Your task to perform on an android device: open a new tab in the chrome app Image 0: 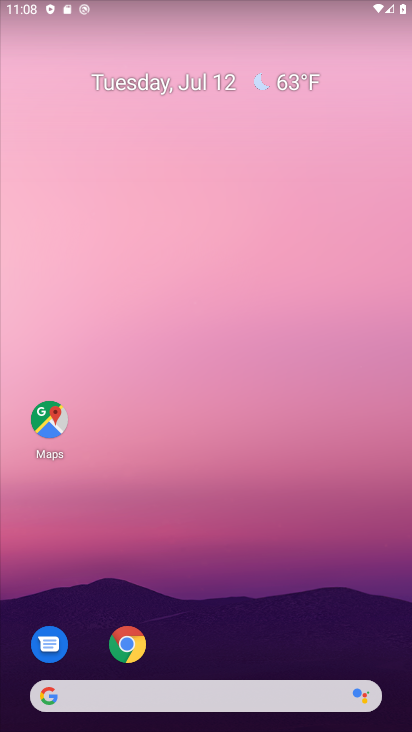
Step 0: click (125, 644)
Your task to perform on an android device: open a new tab in the chrome app Image 1: 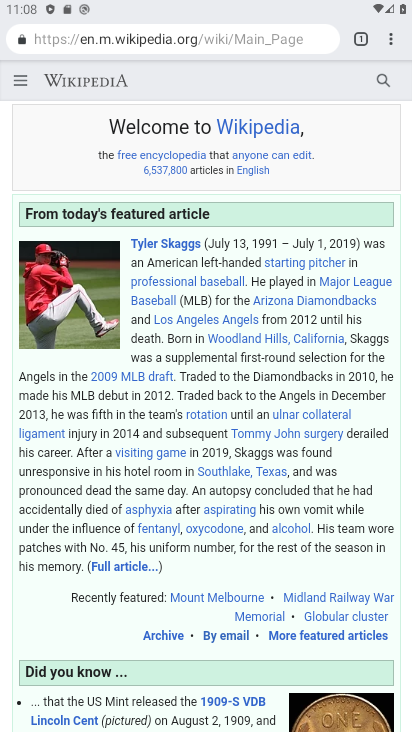
Step 1: click (393, 38)
Your task to perform on an android device: open a new tab in the chrome app Image 2: 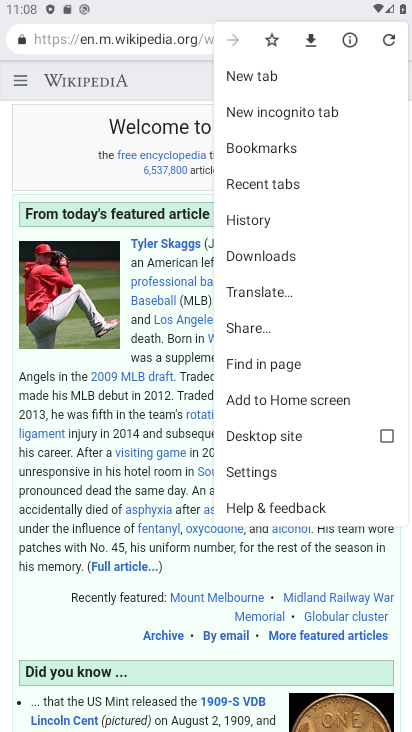
Step 2: click (275, 76)
Your task to perform on an android device: open a new tab in the chrome app Image 3: 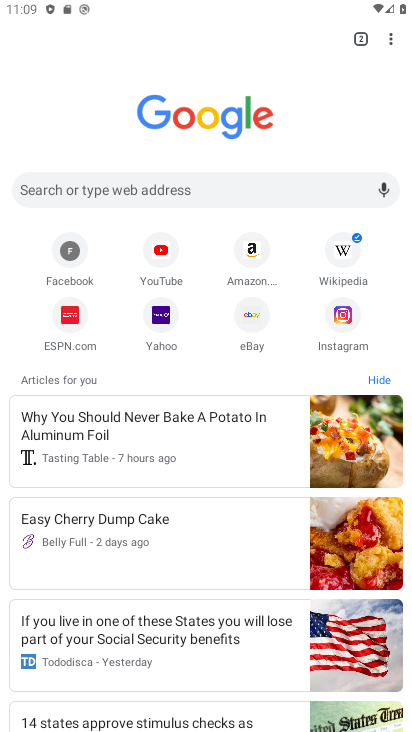
Step 3: task complete